Your task to perform on an android device: What is the news today? Image 0: 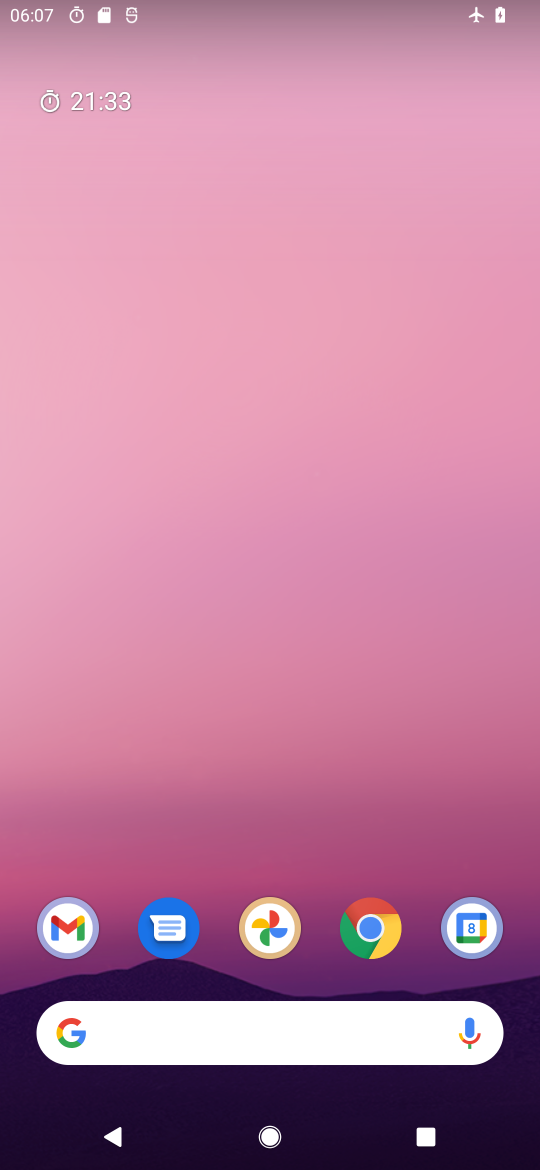
Step 0: click (195, 1030)
Your task to perform on an android device: What is the news today? Image 1: 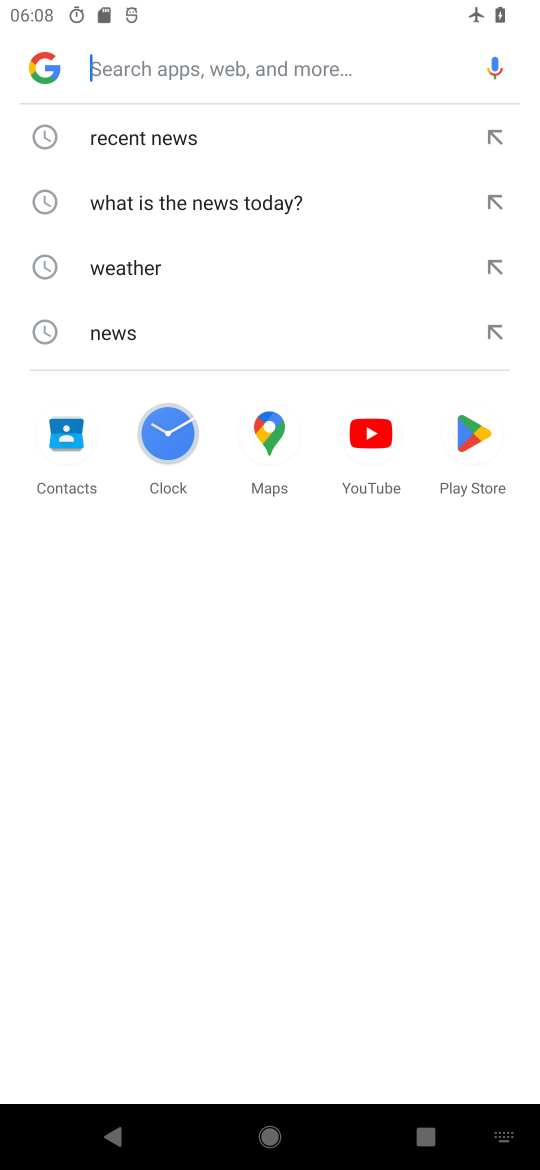
Step 1: click (135, 339)
Your task to perform on an android device: What is the news today? Image 2: 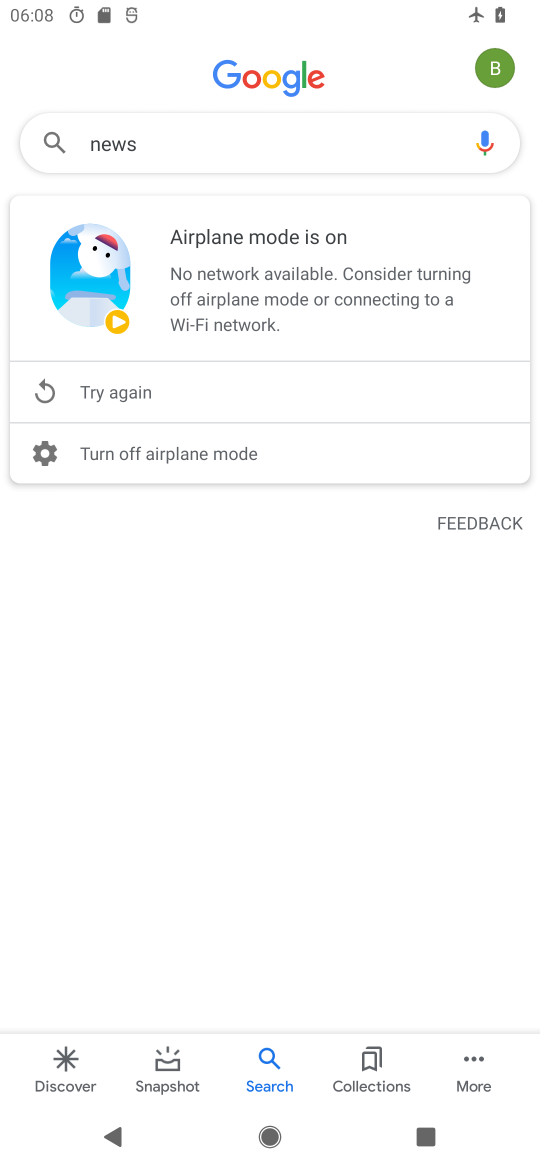
Step 2: task complete